Your task to perform on an android device: Go to Google maps Image 0: 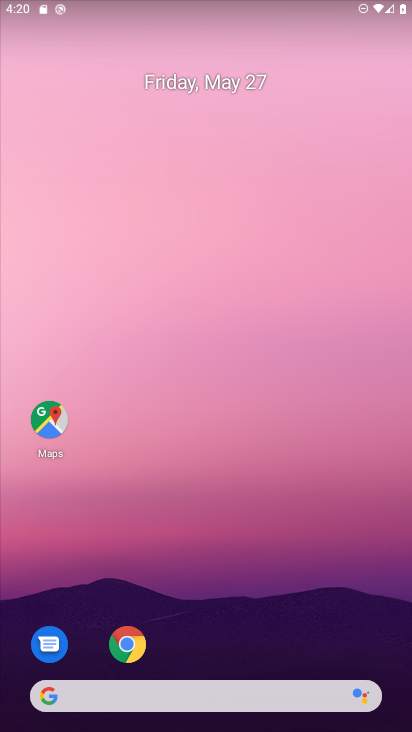
Step 0: click (61, 439)
Your task to perform on an android device: Go to Google maps Image 1: 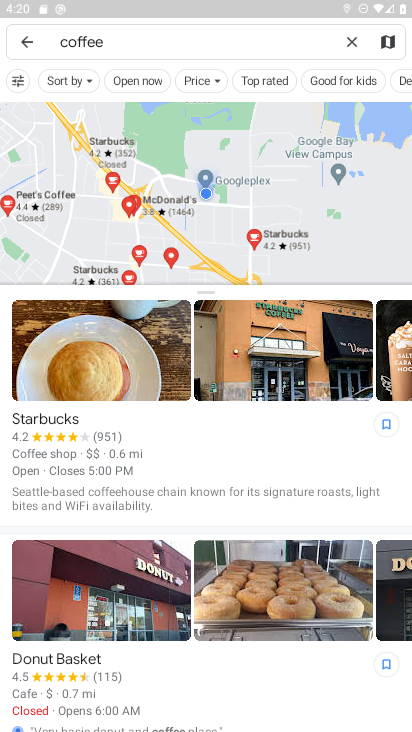
Step 1: task complete